Your task to perform on an android device: turn notification dots on Image 0: 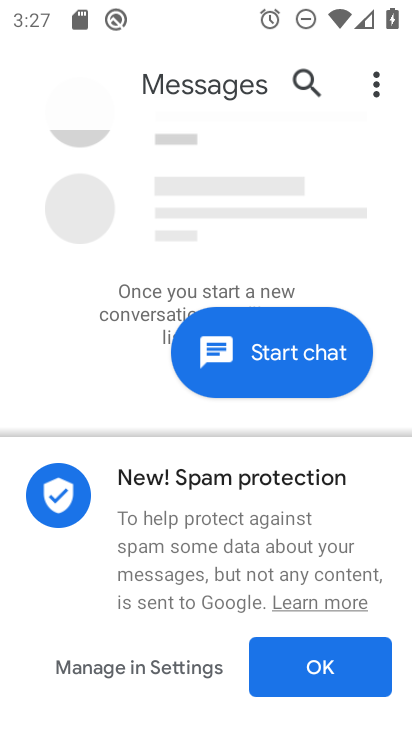
Step 0: press home button
Your task to perform on an android device: turn notification dots on Image 1: 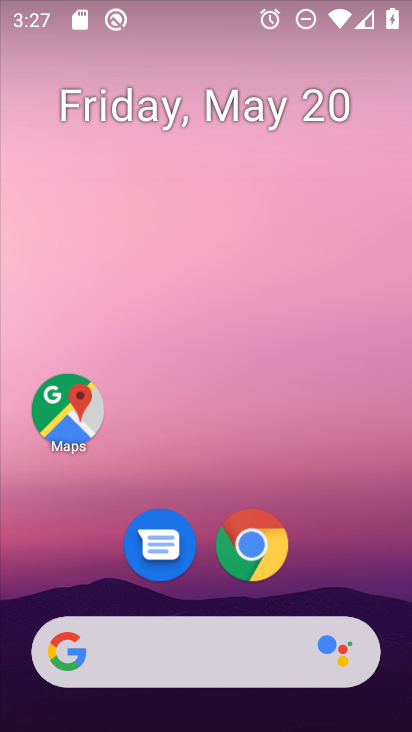
Step 1: drag from (366, 557) to (251, 142)
Your task to perform on an android device: turn notification dots on Image 2: 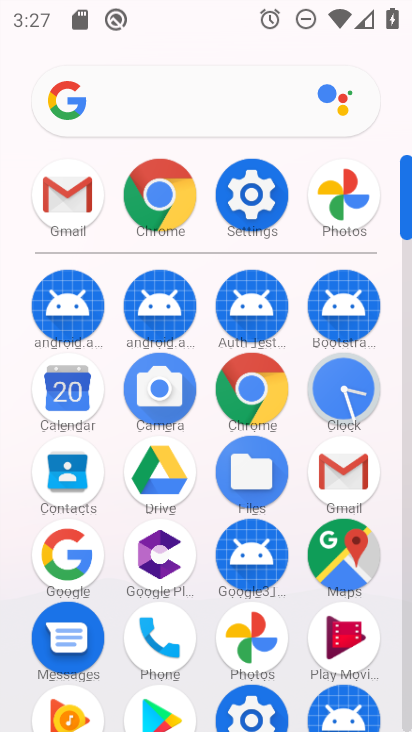
Step 2: click (247, 207)
Your task to perform on an android device: turn notification dots on Image 3: 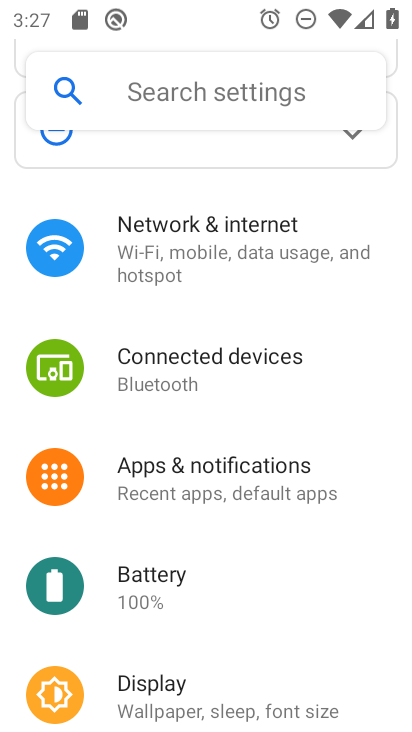
Step 3: click (268, 488)
Your task to perform on an android device: turn notification dots on Image 4: 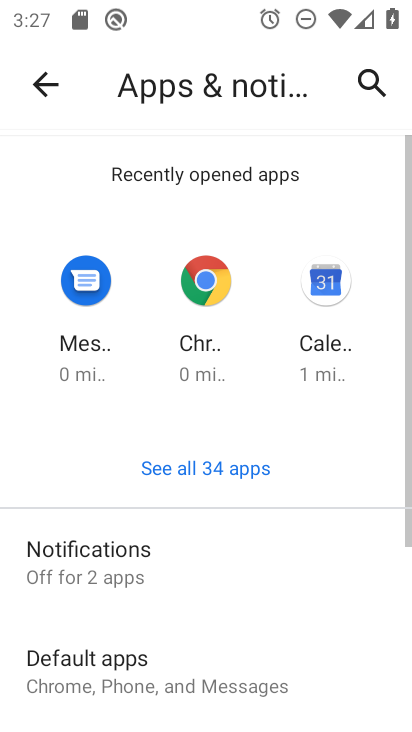
Step 4: click (181, 547)
Your task to perform on an android device: turn notification dots on Image 5: 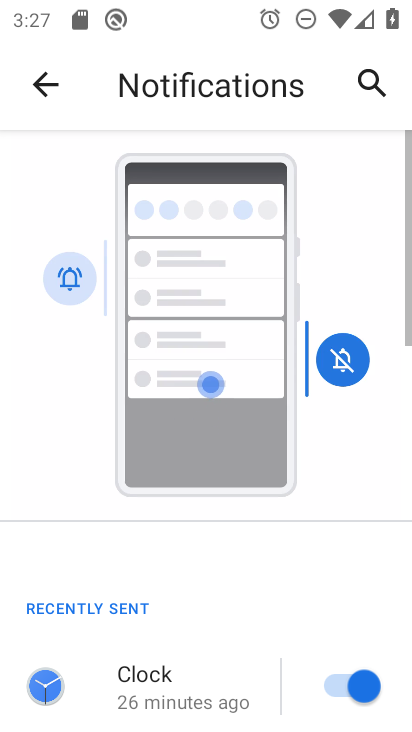
Step 5: drag from (306, 624) to (309, 176)
Your task to perform on an android device: turn notification dots on Image 6: 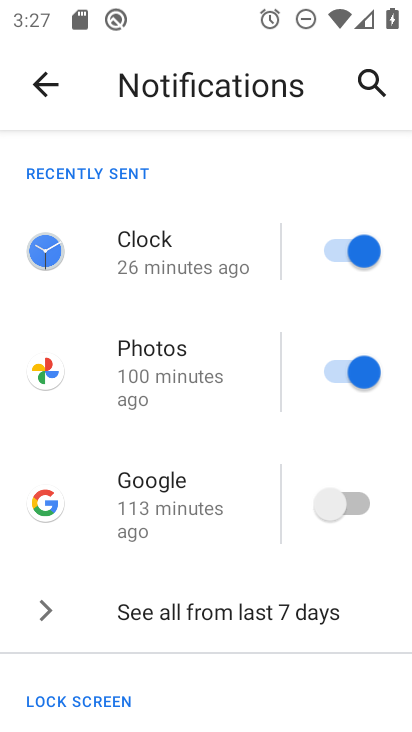
Step 6: drag from (287, 665) to (256, 129)
Your task to perform on an android device: turn notification dots on Image 7: 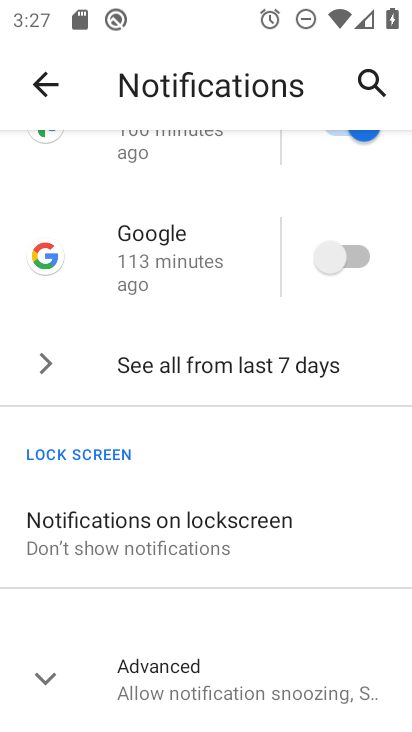
Step 7: click (238, 693)
Your task to perform on an android device: turn notification dots on Image 8: 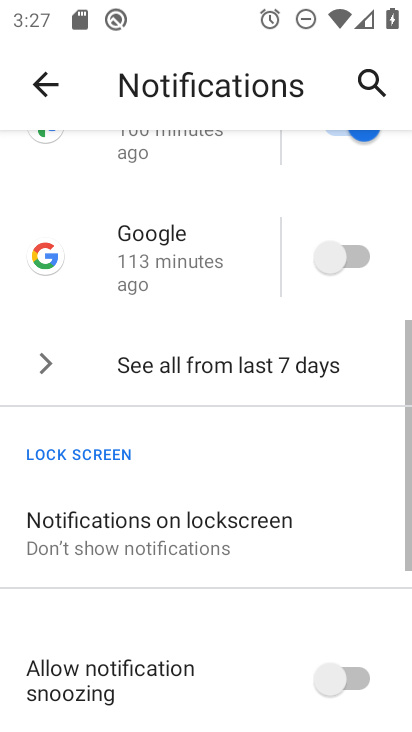
Step 8: drag from (289, 652) to (243, 219)
Your task to perform on an android device: turn notification dots on Image 9: 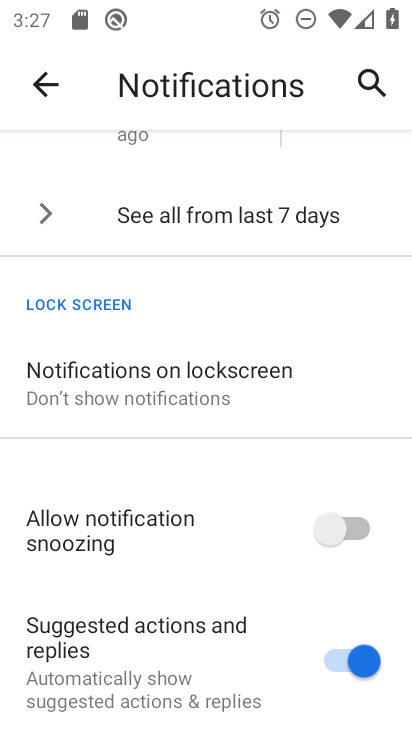
Step 9: drag from (291, 636) to (296, 176)
Your task to perform on an android device: turn notification dots on Image 10: 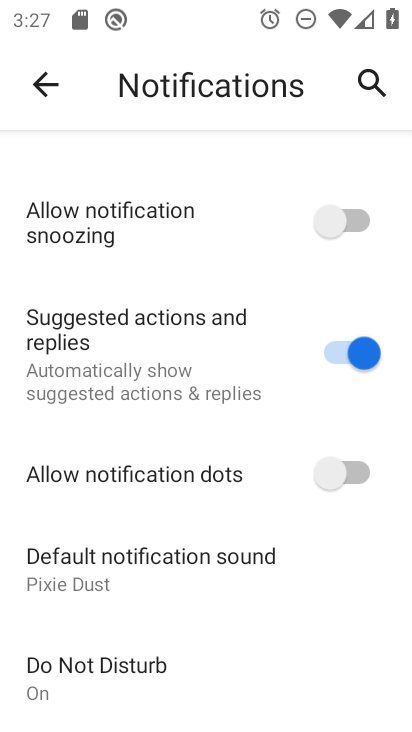
Step 10: click (356, 472)
Your task to perform on an android device: turn notification dots on Image 11: 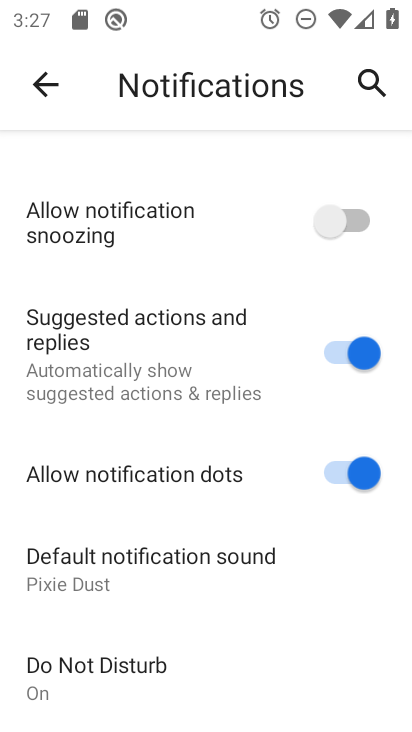
Step 11: task complete